Your task to perform on an android device: open app "Duolingo: language lessons" Image 0: 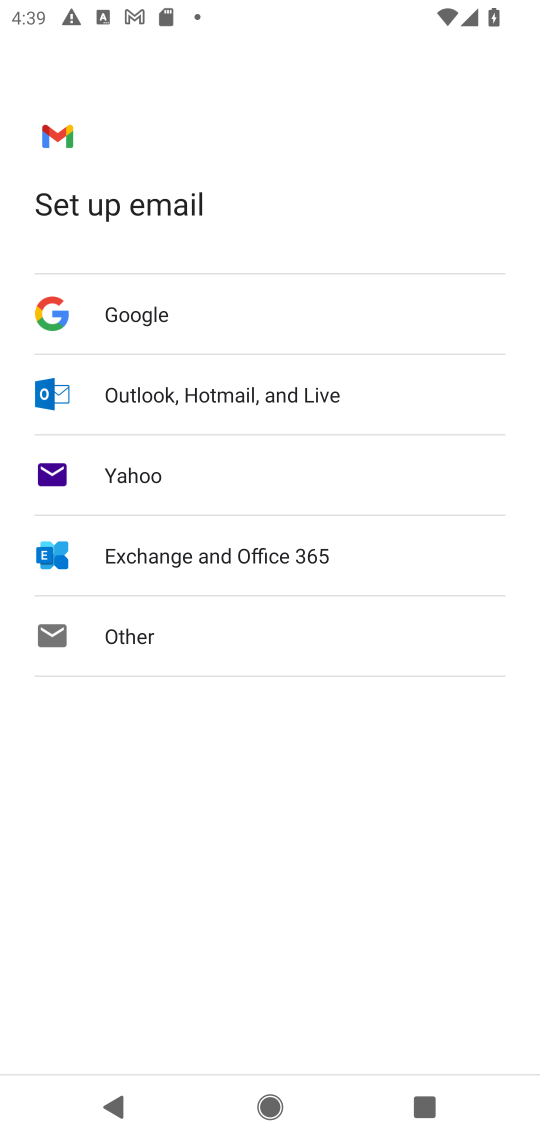
Step 0: press home button
Your task to perform on an android device: open app "Duolingo: language lessons" Image 1: 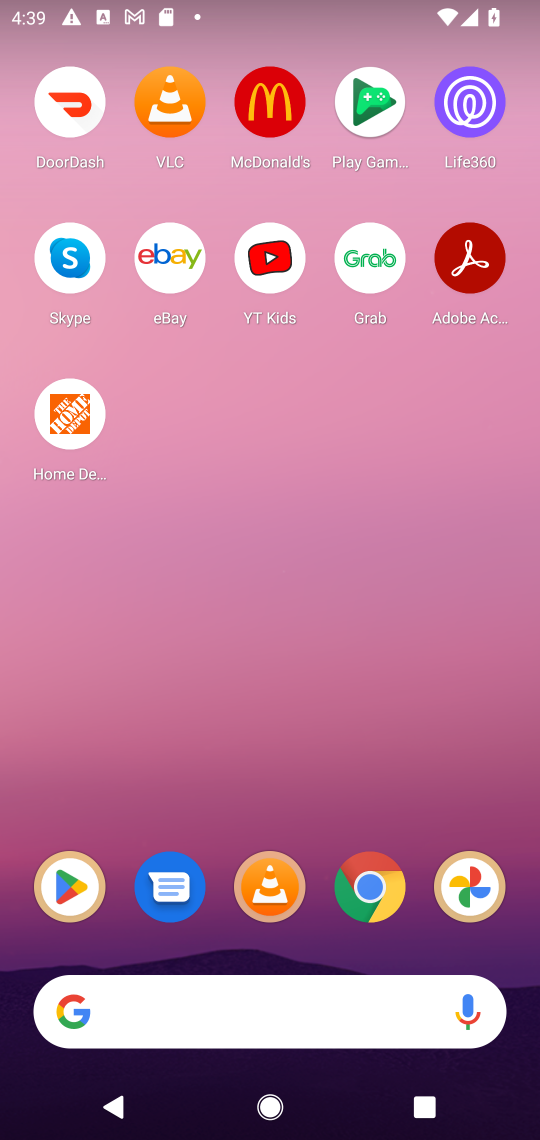
Step 1: click (63, 906)
Your task to perform on an android device: open app "Duolingo: language lessons" Image 2: 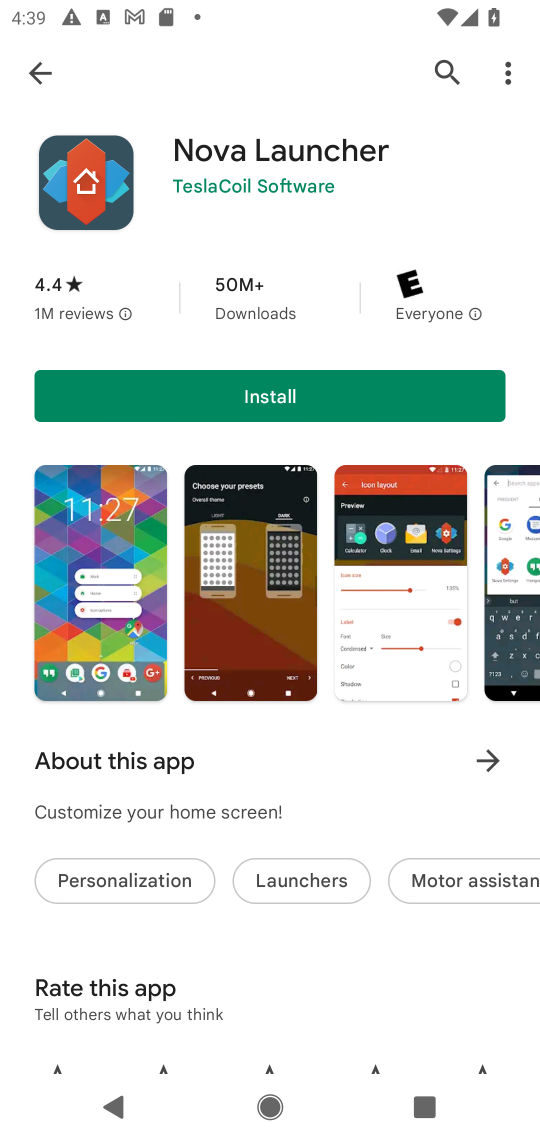
Step 2: click (28, 73)
Your task to perform on an android device: open app "Duolingo: language lessons" Image 3: 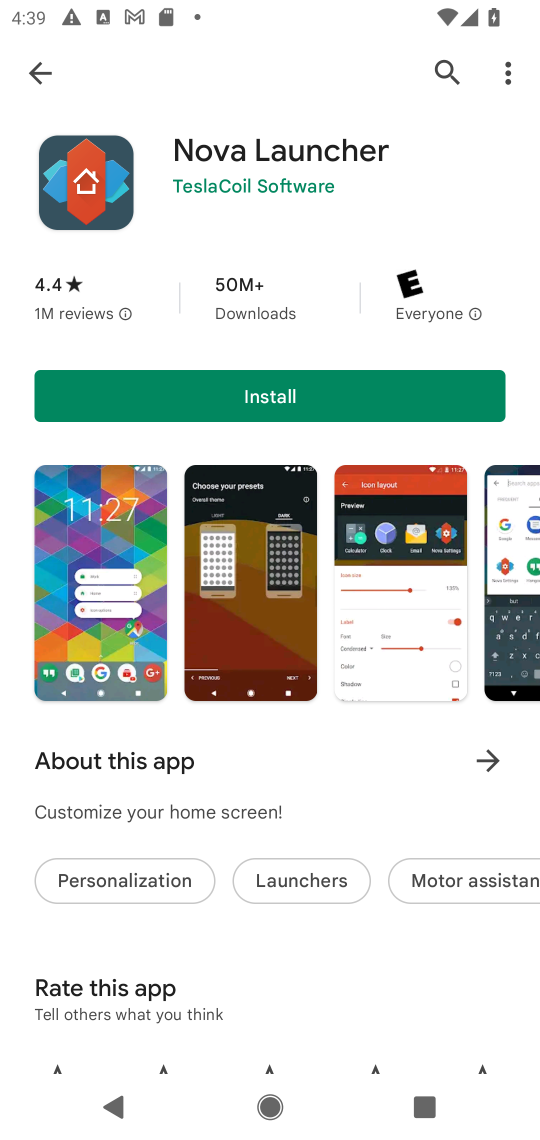
Step 3: click (40, 79)
Your task to perform on an android device: open app "Duolingo: language lessons" Image 4: 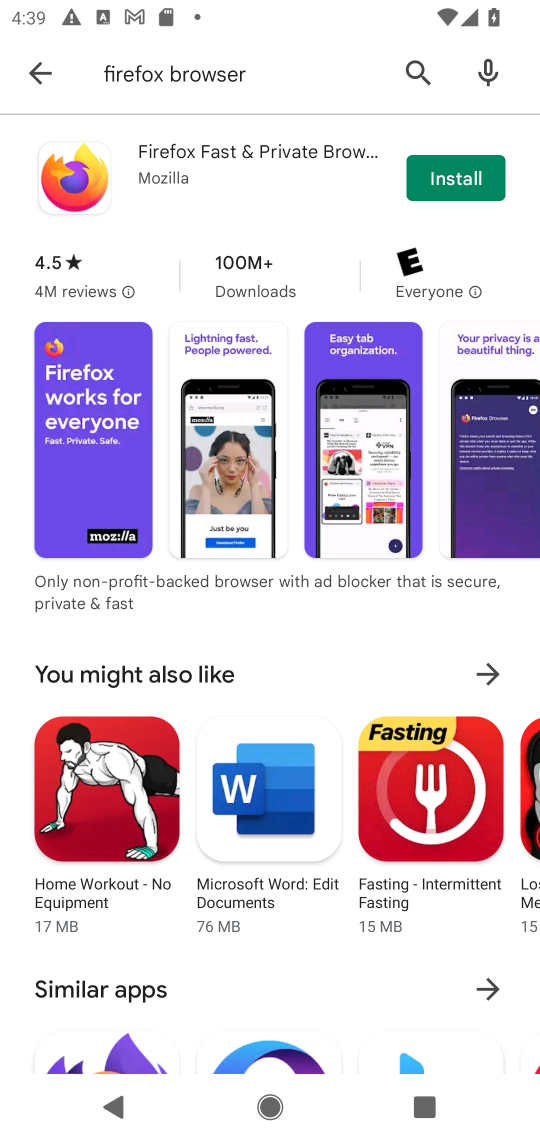
Step 4: click (217, 70)
Your task to perform on an android device: open app "Duolingo: language lessons" Image 5: 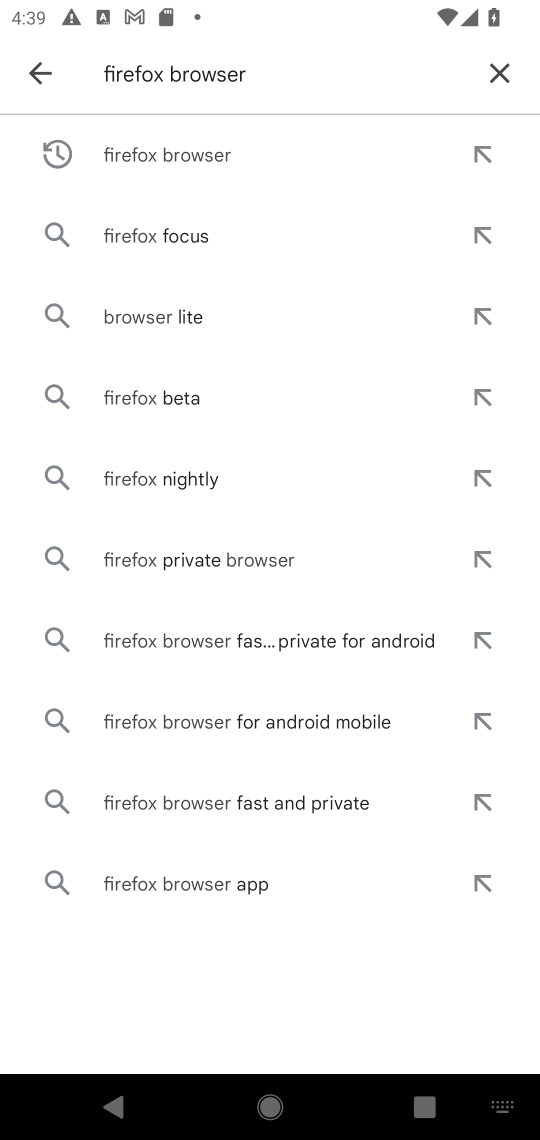
Step 5: click (497, 68)
Your task to perform on an android device: open app "Duolingo: language lessons" Image 6: 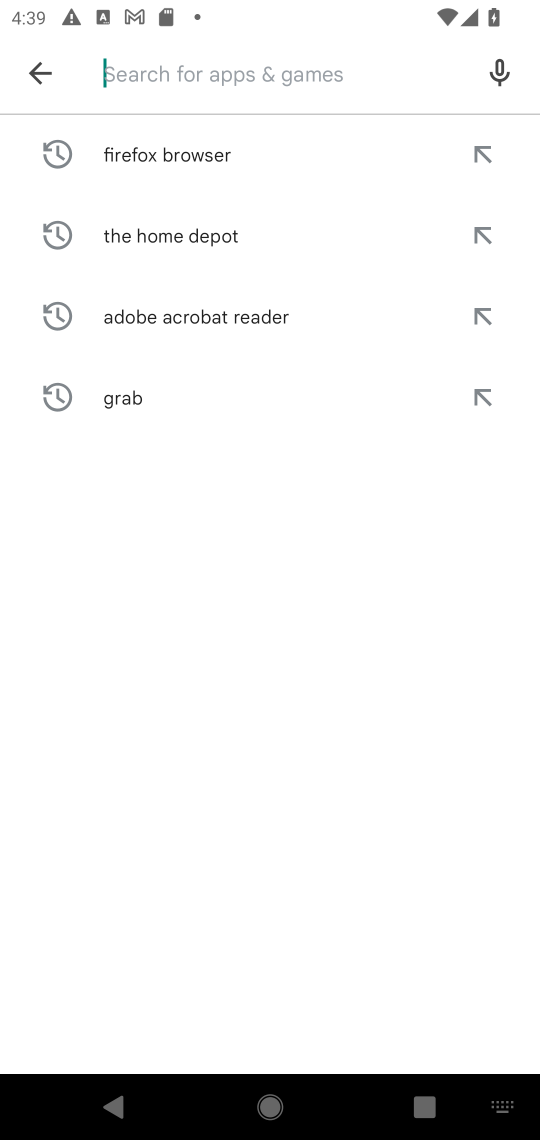
Step 6: type "Duolingo"
Your task to perform on an android device: open app "Duolingo: language lessons" Image 7: 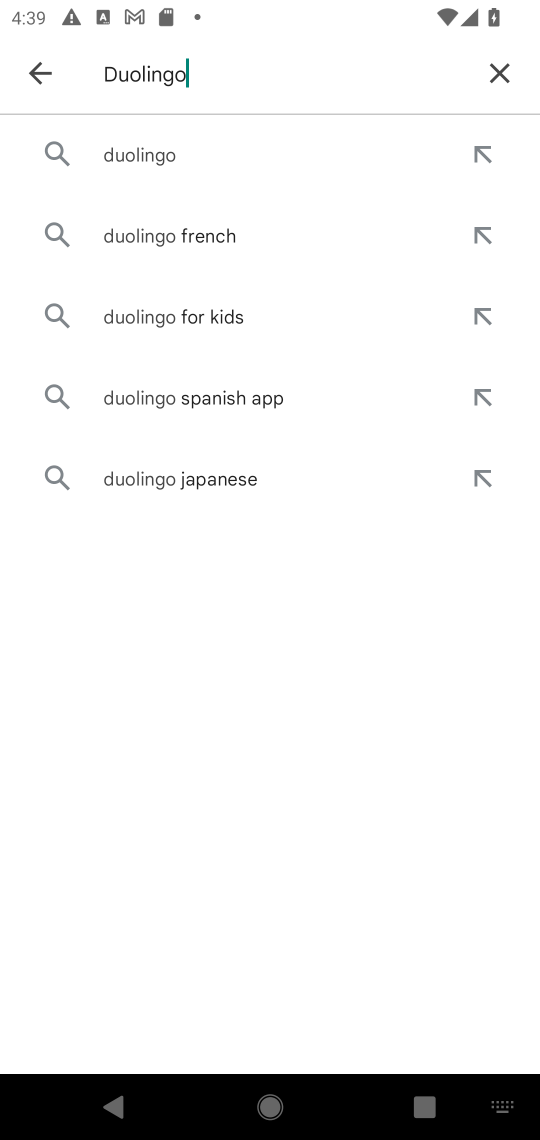
Step 7: click (164, 163)
Your task to perform on an android device: open app "Duolingo: language lessons" Image 8: 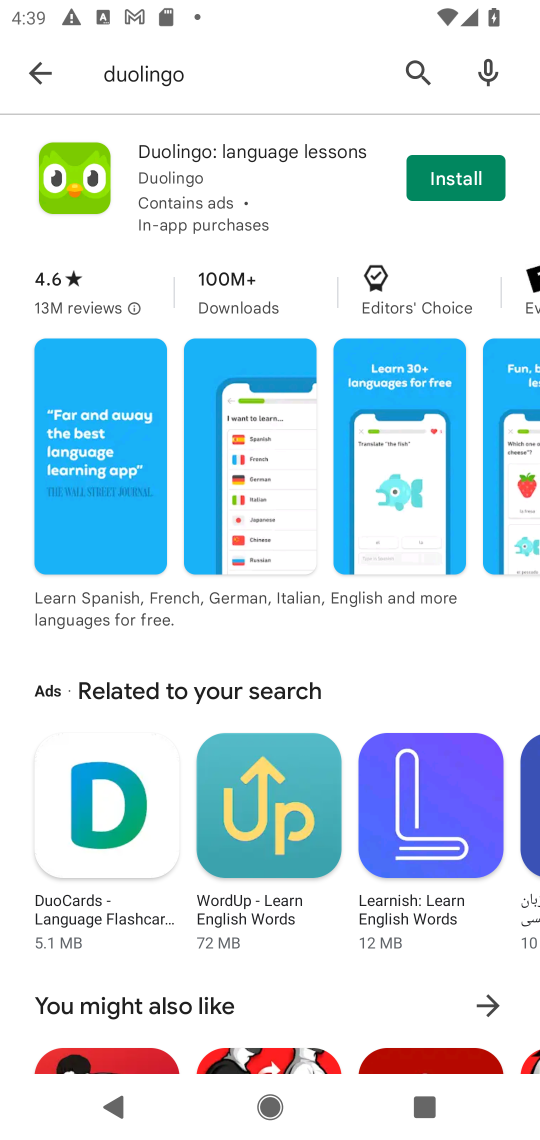
Step 8: task complete